Your task to perform on an android device: Open the web browser Image 0: 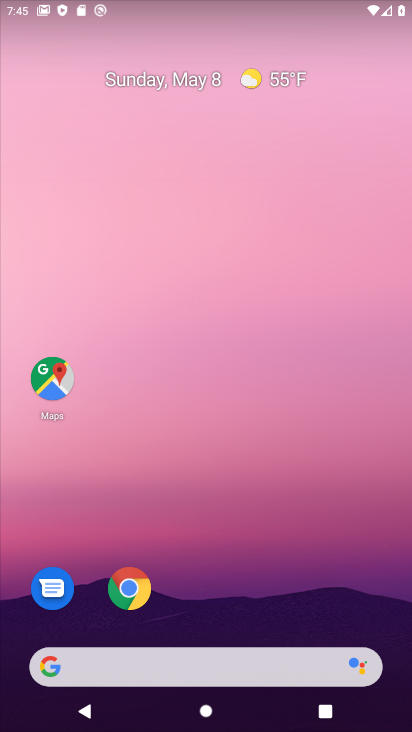
Step 0: click (131, 594)
Your task to perform on an android device: Open the web browser Image 1: 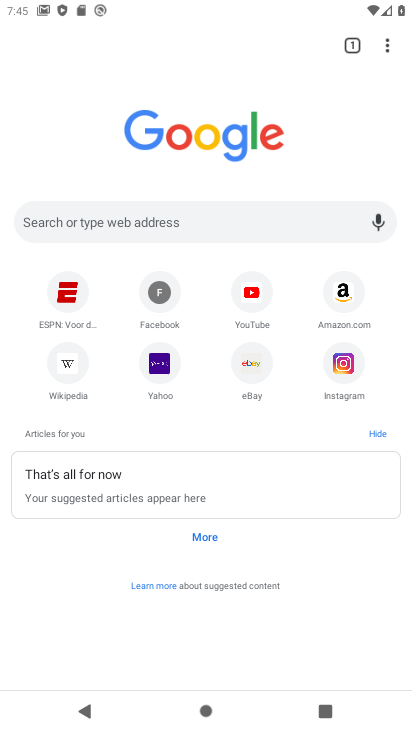
Step 1: click (147, 215)
Your task to perform on an android device: Open the web browser Image 2: 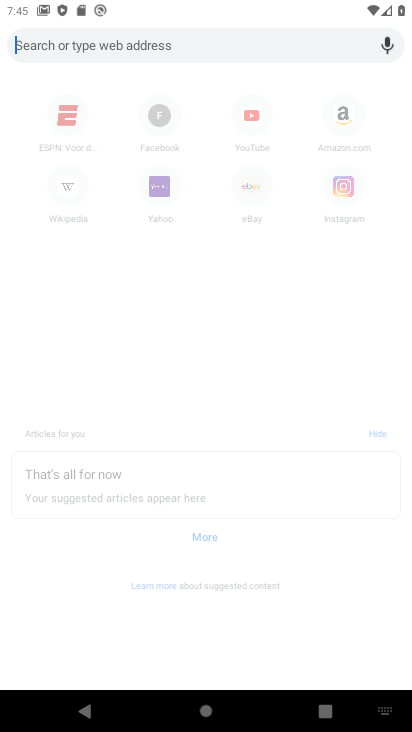
Step 2: type "web browser"
Your task to perform on an android device: Open the web browser Image 3: 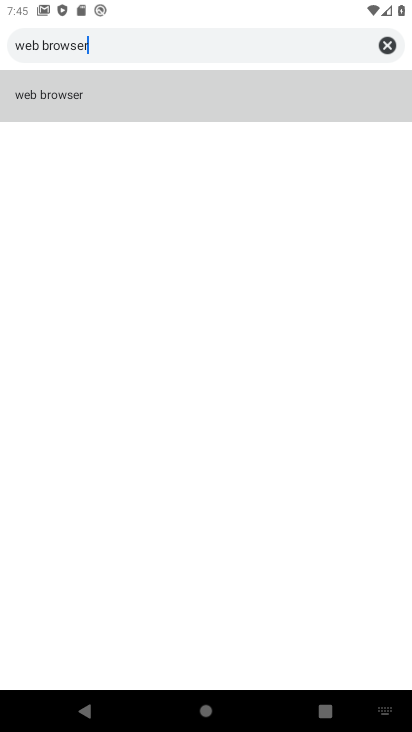
Step 3: click (168, 106)
Your task to perform on an android device: Open the web browser Image 4: 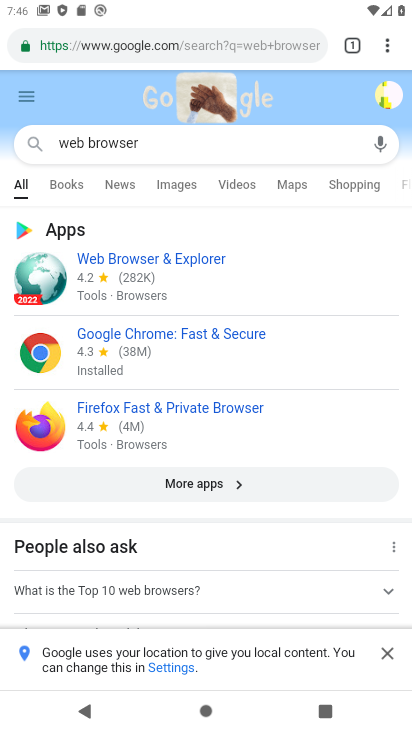
Step 4: click (387, 653)
Your task to perform on an android device: Open the web browser Image 5: 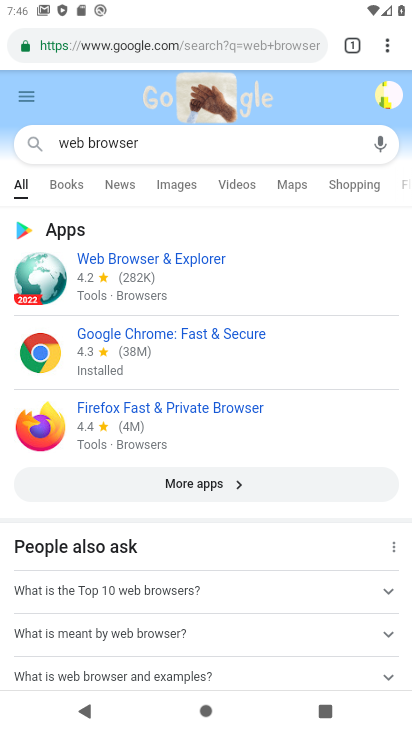
Step 5: task complete